Your task to perform on an android device: Open settings Image 0: 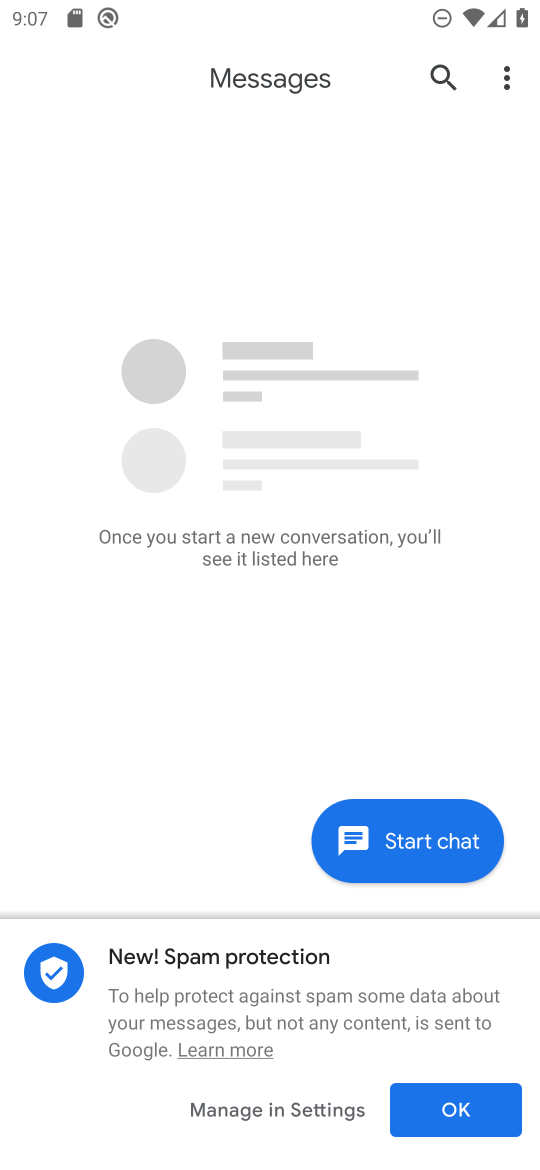
Step 0: press home button
Your task to perform on an android device: Open settings Image 1: 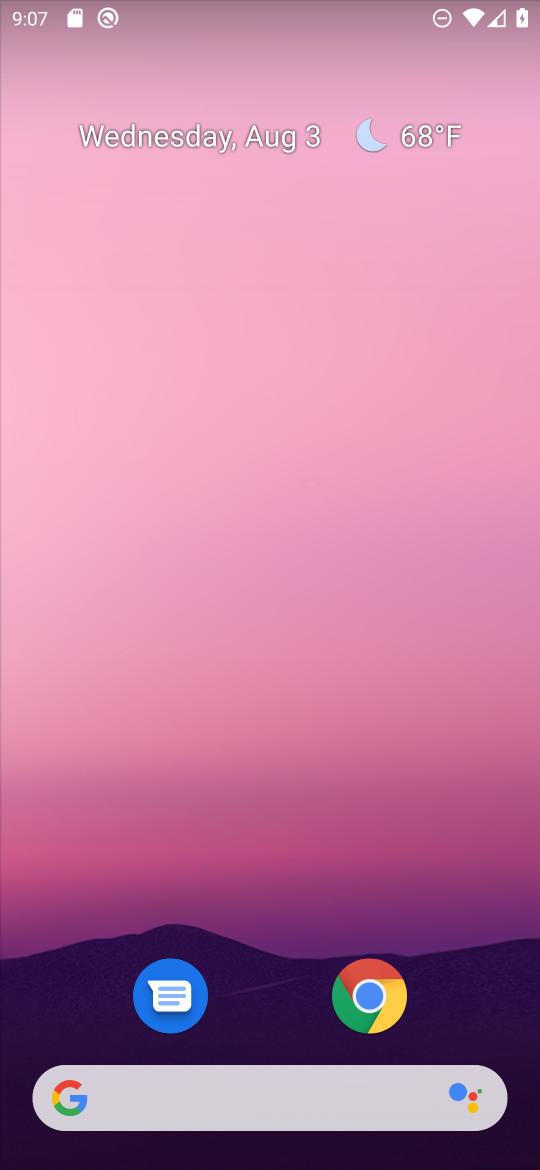
Step 1: drag from (265, 967) to (357, 111)
Your task to perform on an android device: Open settings Image 2: 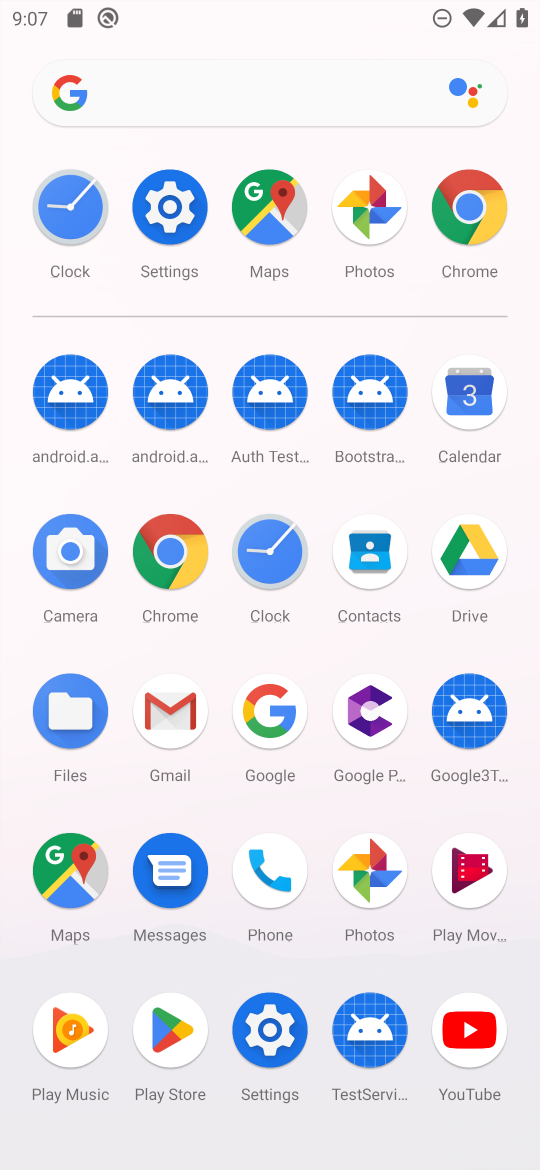
Step 2: click (165, 203)
Your task to perform on an android device: Open settings Image 3: 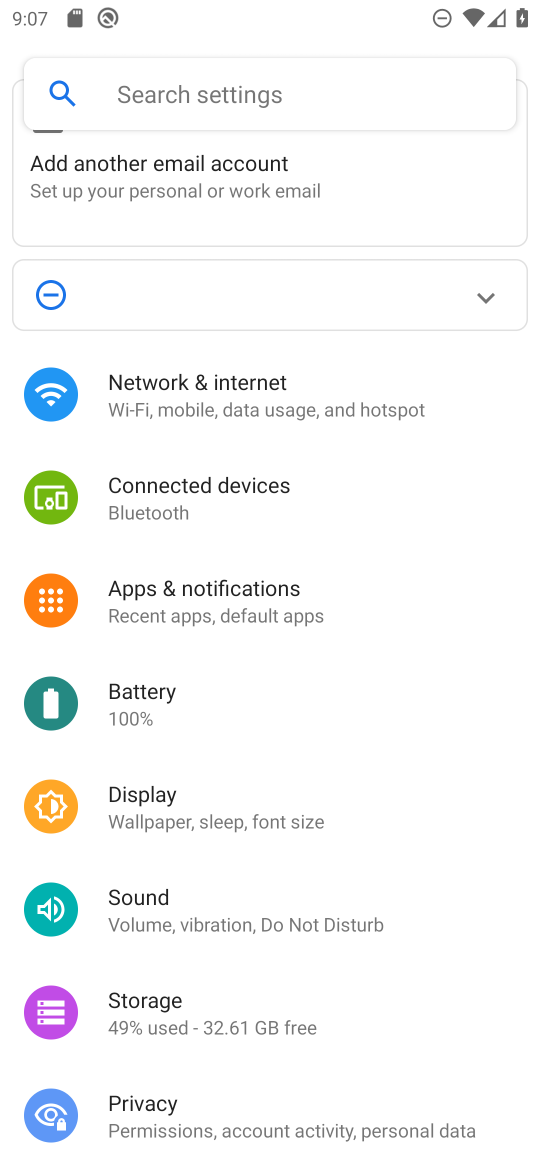
Step 3: task complete